Your task to perform on an android device: turn on priority inbox in the gmail app Image 0: 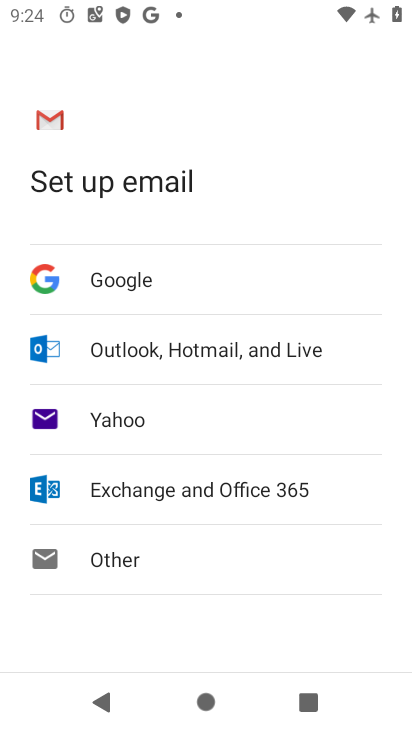
Step 0: press home button
Your task to perform on an android device: turn on priority inbox in the gmail app Image 1: 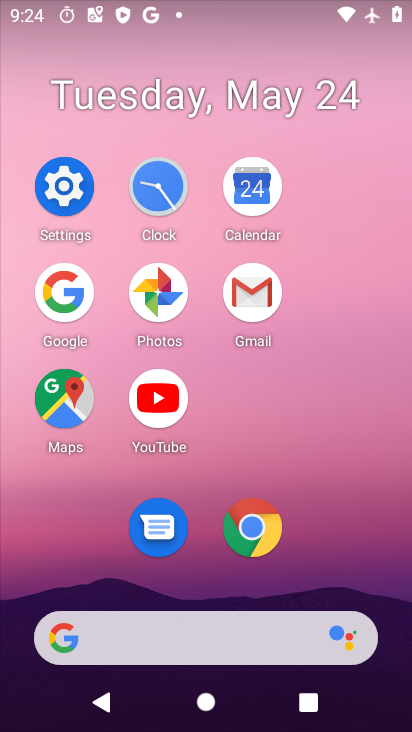
Step 1: click (239, 298)
Your task to perform on an android device: turn on priority inbox in the gmail app Image 2: 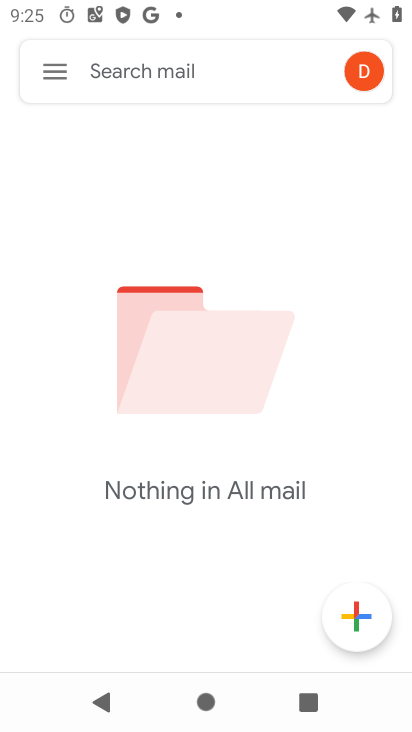
Step 2: click (56, 91)
Your task to perform on an android device: turn on priority inbox in the gmail app Image 3: 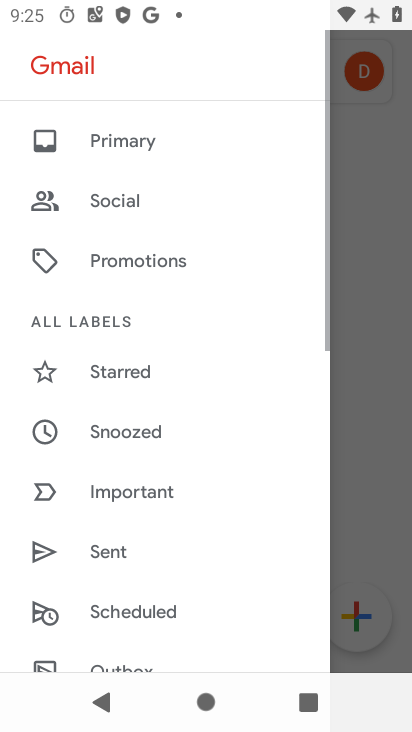
Step 3: drag from (190, 446) to (216, 89)
Your task to perform on an android device: turn on priority inbox in the gmail app Image 4: 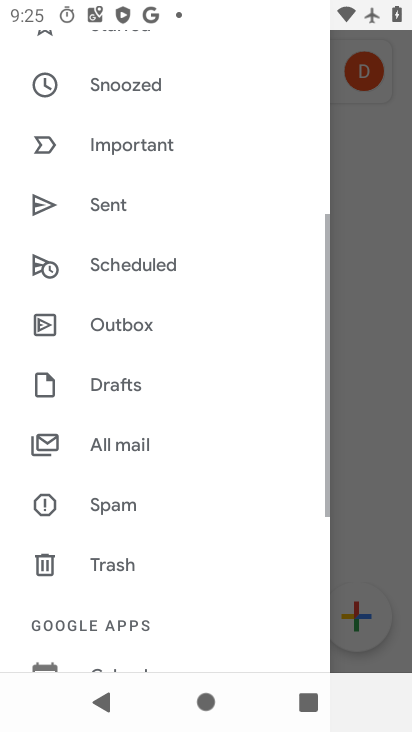
Step 4: drag from (206, 548) to (237, 105)
Your task to perform on an android device: turn on priority inbox in the gmail app Image 5: 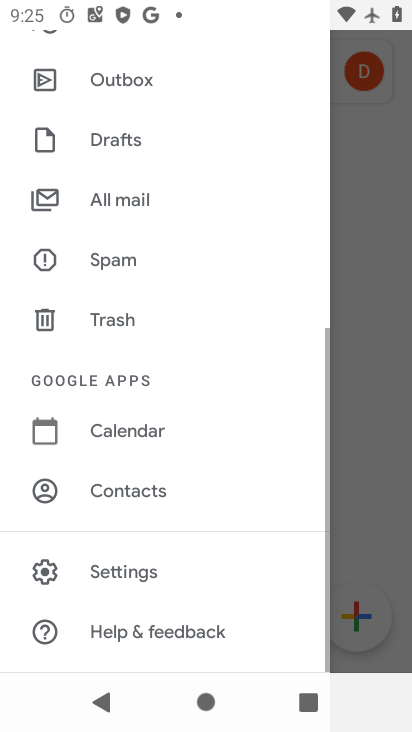
Step 5: click (163, 569)
Your task to perform on an android device: turn on priority inbox in the gmail app Image 6: 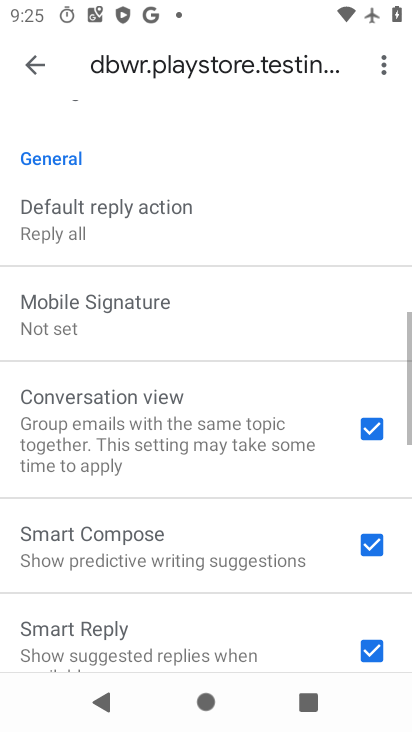
Step 6: drag from (163, 569) to (195, 126)
Your task to perform on an android device: turn on priority inbox in the gmail app Image 7: 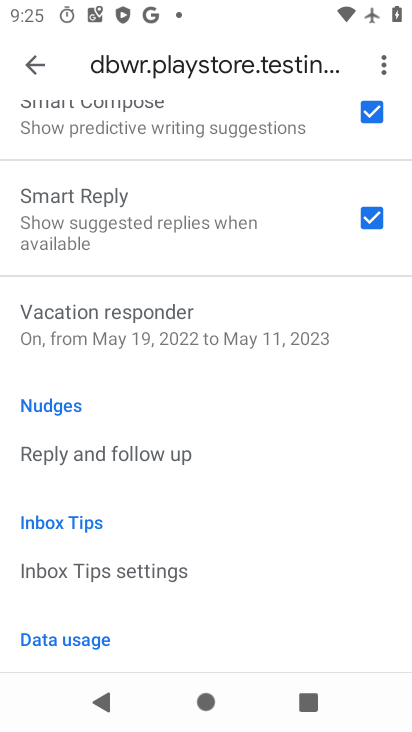
Step 7: drag from (207, 70) to (218, 325)
Your task to perform on an android device: turn on priority inbox in the gmail app Image 8: 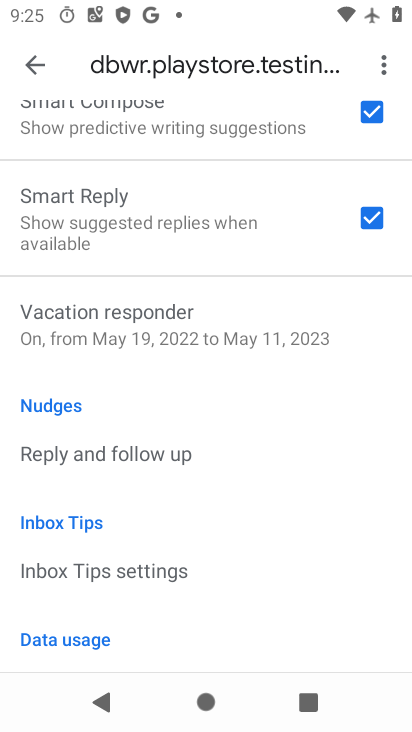
Step 8: drag from (229, 230) to (274, 455)
Your task to perform on an android device: turn on priority inbox in the gmail app Image 9: 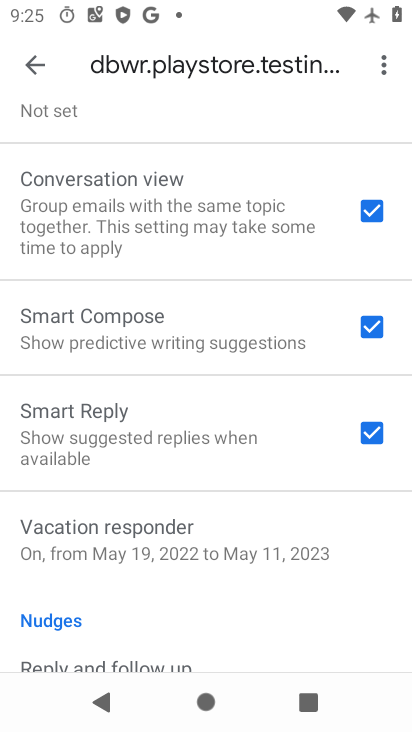
Step 9: drag from (200, 215) to (210, 551)
Your task to perform on an android device: turn on priority inbox in the gmail app Image 10: 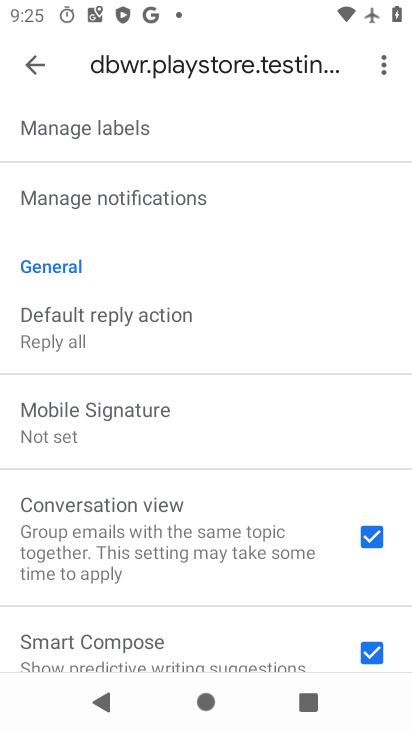
Step 10: drag from (199, 281) to (256, 570)
Your task to perform on an android device: turn on priority inbox in the gmail app Image 11: 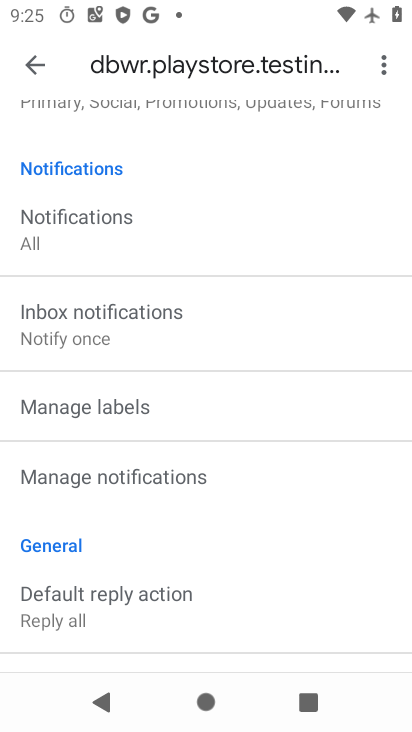
Step 11: drag from (200, 269) to (238, 563)
Your task to perform on an android device: turn on priority inbox in the gmail app Image 12: 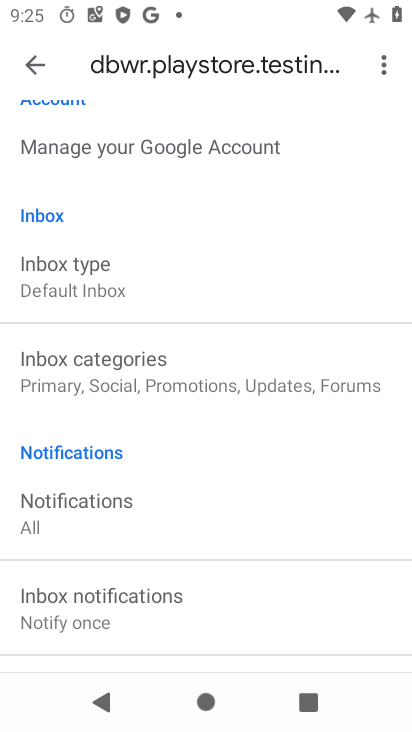
Step 12: click (179, 275)
Your task to perform on an android device: turn on priority inbox in the gmail app Image 13: 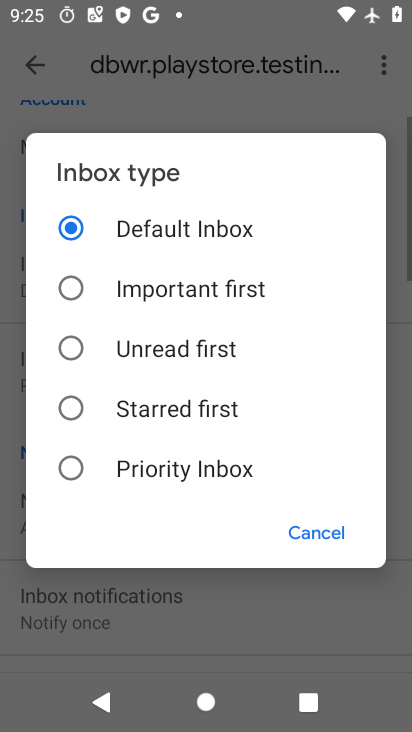
Step 13: click (204, 466)
Your task to perform on an android device: turn on priority inbox in the gmail app Image 14: 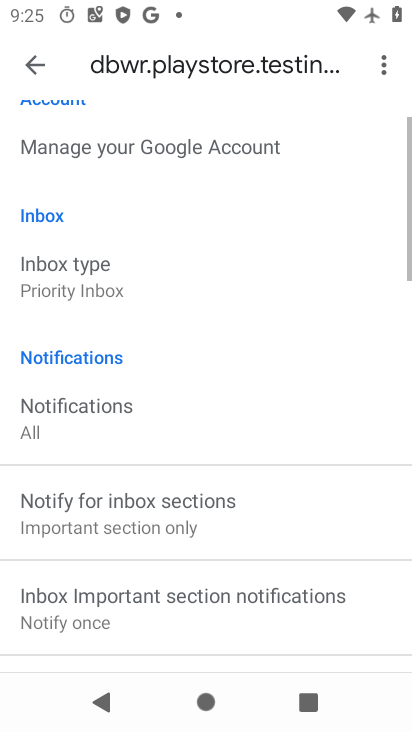
Step 14: task complete